Your task to perform on an android device: turn notification dots off Image 0: 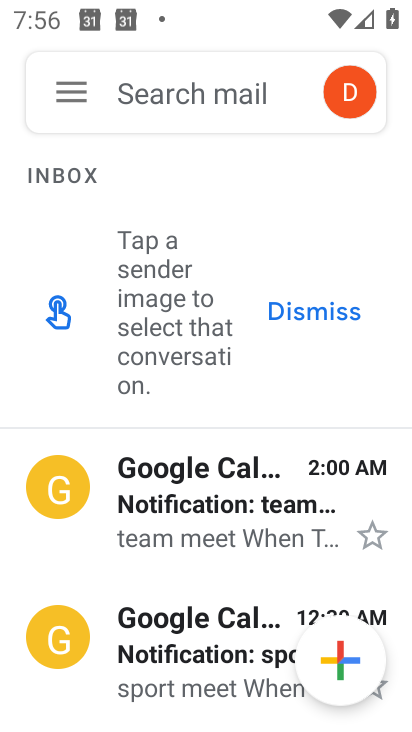
Step 0: press home button
Your task to perform on an android device: turn notification dots off Image 1: 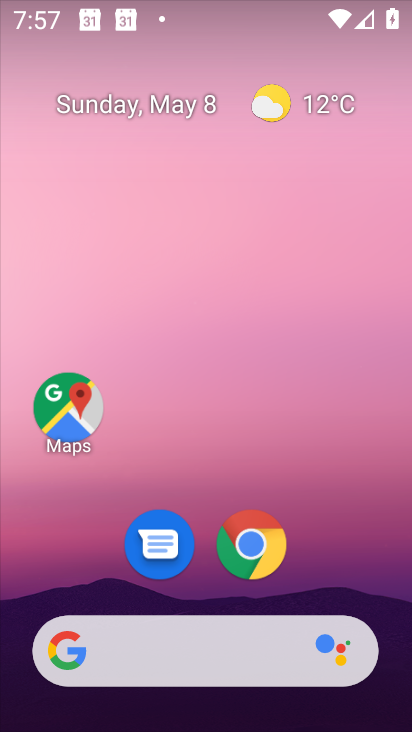
Step 1: drag from (344, 534) to (157, 29)
Your task to perform on an android device: turn notification dots off Image 2: 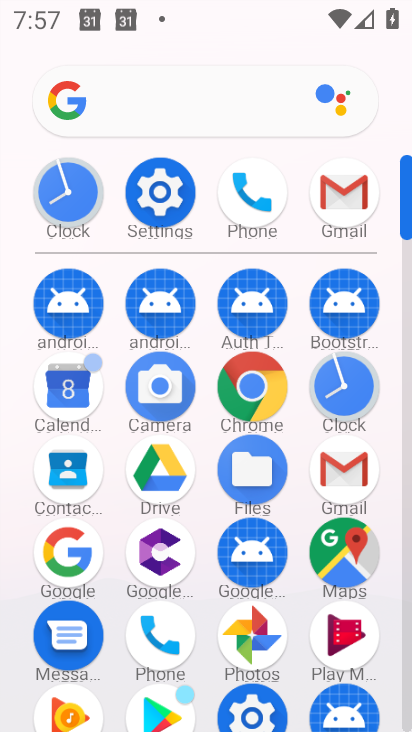
Step 2: click (157, 29)
Your task to perform on an android device: turn notification dots off Image 3: 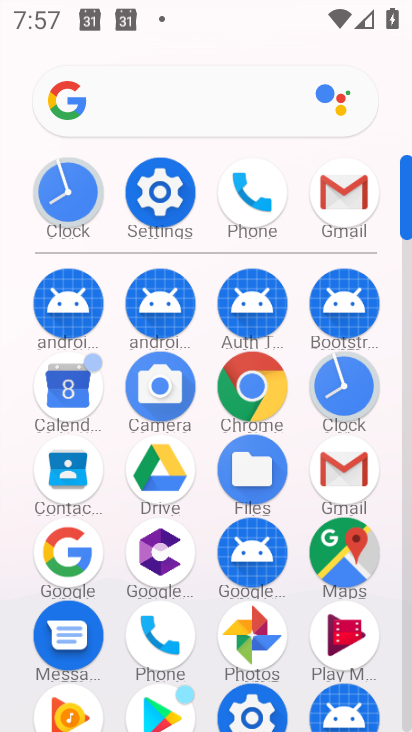
Step 3: click (157, 196)
Your task to perform on an android device: turn notification dots off Image 4: 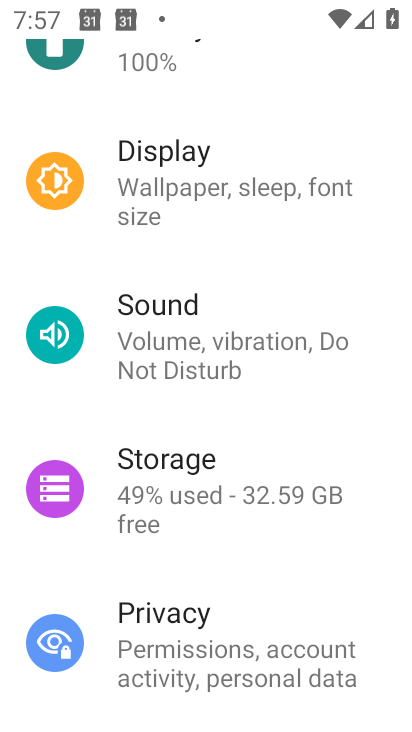
Step 4: drag from (271, 273) to (69, 728)
Your task to perform on an android device: turn notification dots off Image 5: 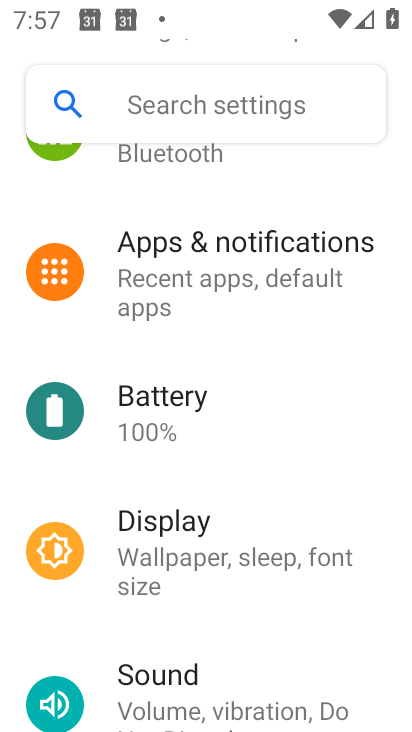
Step 5: click (229, 245)
Your task to perform on an android device: turn notification dots off Image 6: 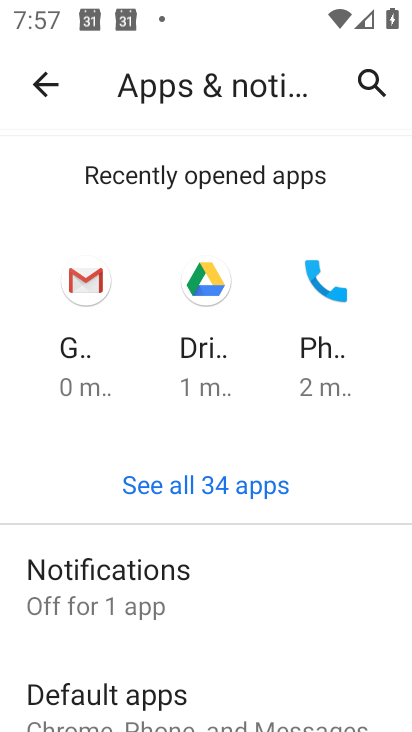
Step 6: drag from (221, 622) to (172, 259)
Your task to perform on an android device: turn notification dots off Image 7: 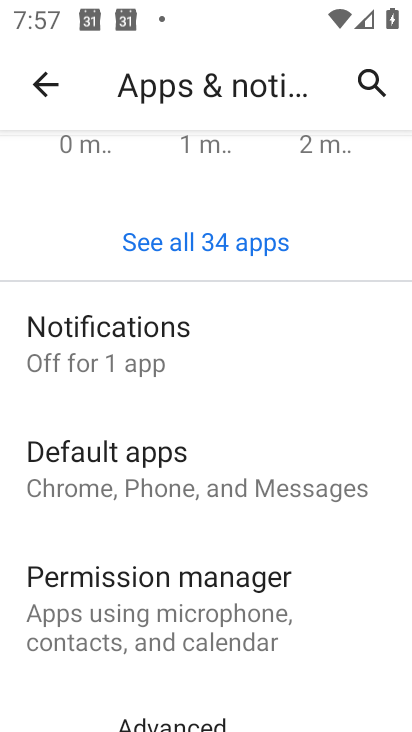
Step 7: drag from (173, 665) to (89, 195)
Your task to perform on an android device: turn notification dots off Image 8: 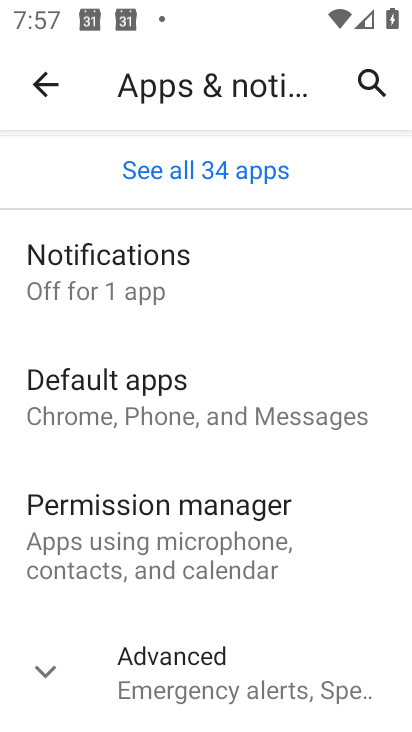
Step 8: click (48, 671)
Your task to perform on an android device: turn notification dots off Image 9: 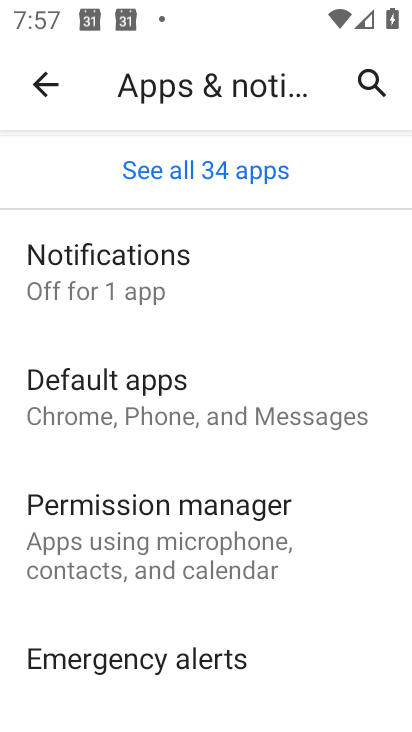
Step 9: drag from (145, 618) to (90, 179)
Your task to perform on an android device: turn notification dots off Image 10: 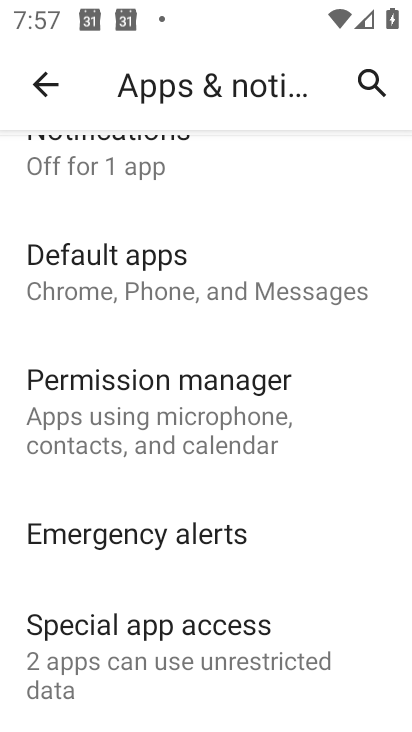
Step 10: drag from (254, 202) to (330, 559)
Your task to perform on an android device: turn notification dots off Image 11: 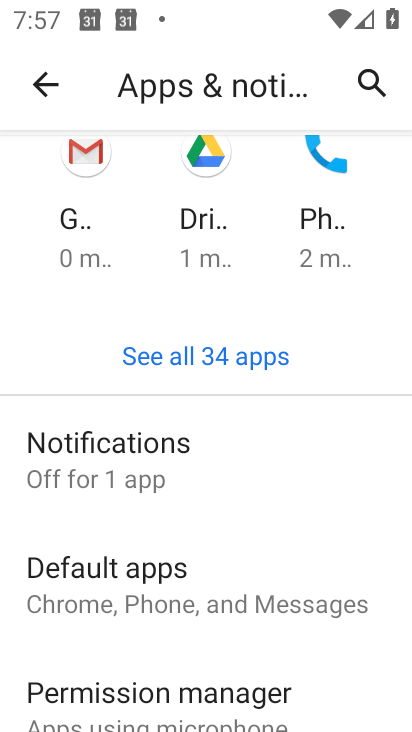
Step 11: click (120, 452)
Your task to perform on an android device: turn notification dots off Image 12: 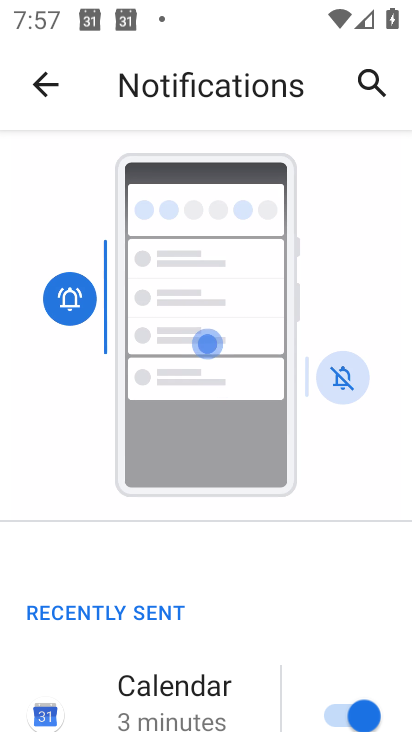
Step 12: drag from (222, 581) to (221, 4)
Your task to perform on an android device: turn notification dots off Image 13: 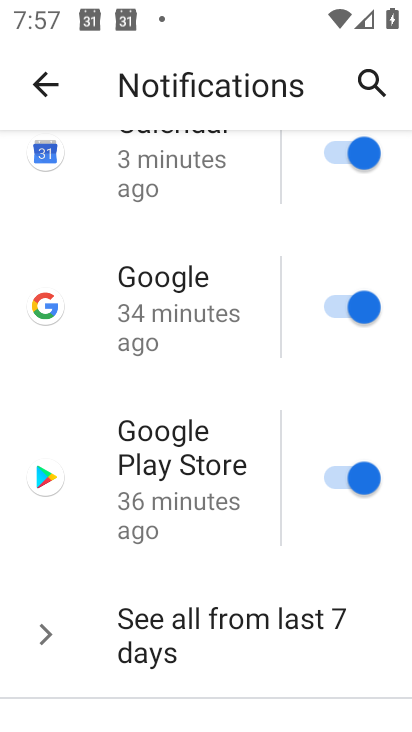
Step 13: drag from (229, 669) to (192, 296)
Your task to perform on an android device: turn notification dots off Image 14: 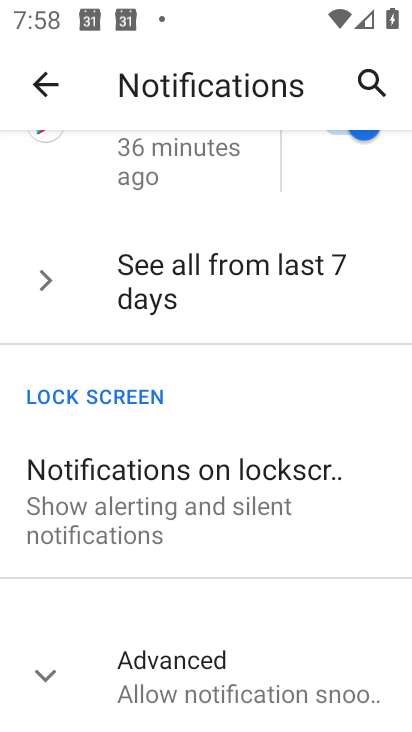
Step 14: drag from (184, 600) to (146, 172)
Your task to perform on an android device: turn notification dots off Image 15: 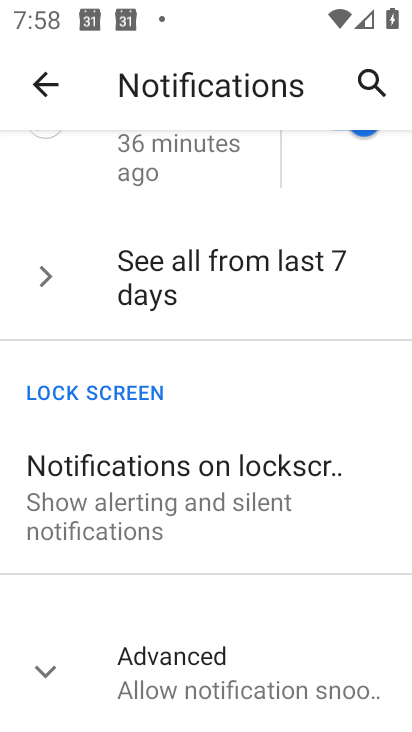
Step 15: click (38, 675)
Your task to perform on an android device: turn notification dots off Image 16: 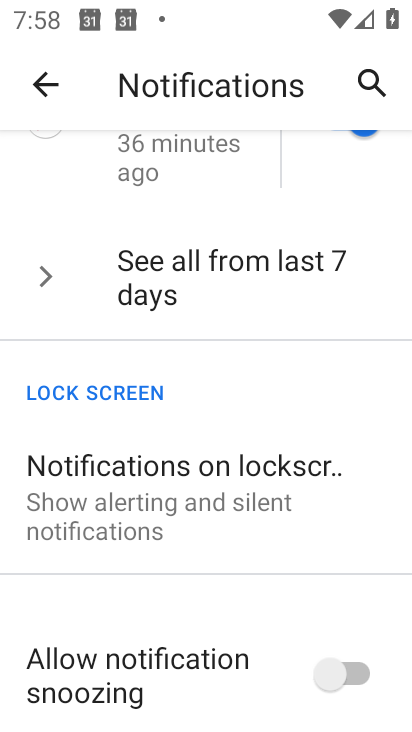
Step 16: drag from (133, 599) to (133, 281)
Your task to perform on an android device: turn notification dots off Image 17: 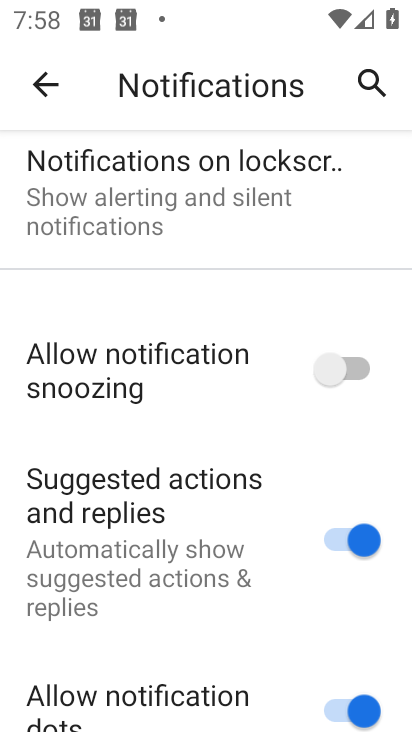
Step 17: drag from (163, 614) to (163, 356)
Your task to perform on an android device: turn notification dots off Image 18: 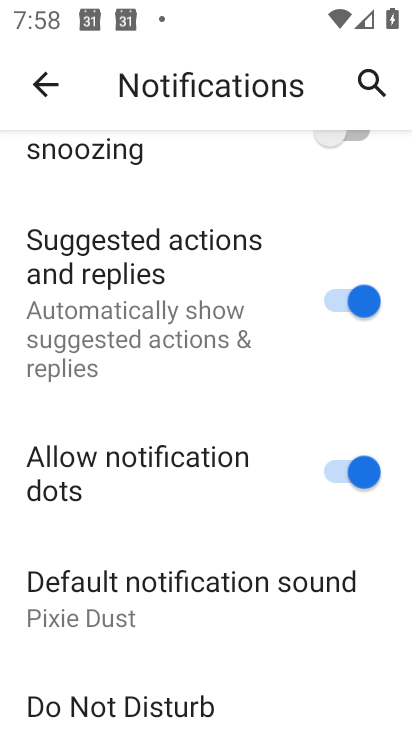
Step 18: click (356, 468)
Your task to perform on an android device: turn notification dots off Image 19: 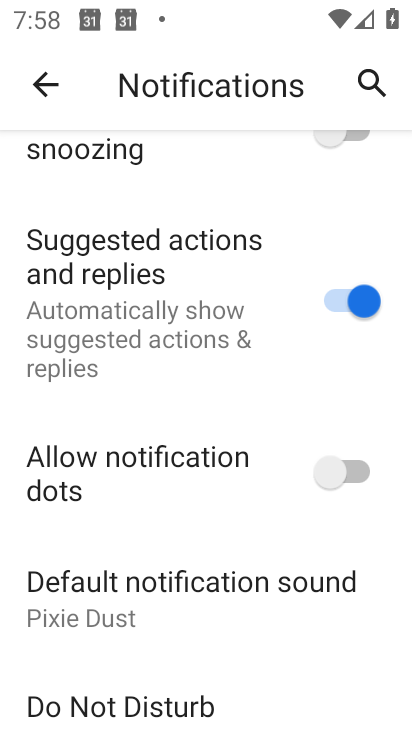
Step 19: task complete